Your task to perform on an android device: Open the calendar app, open the side menu, and click the "Day" option Image 0: 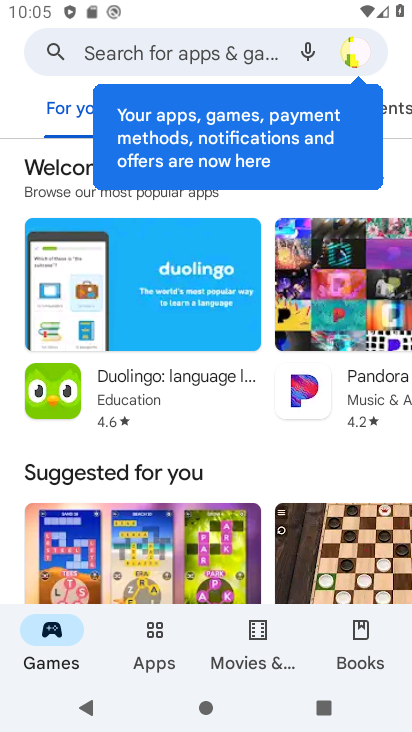
Step 0: press home button
Your task to perform on an android device: Open the calendar app, open the side menu, and click the "Day" option Image 1: 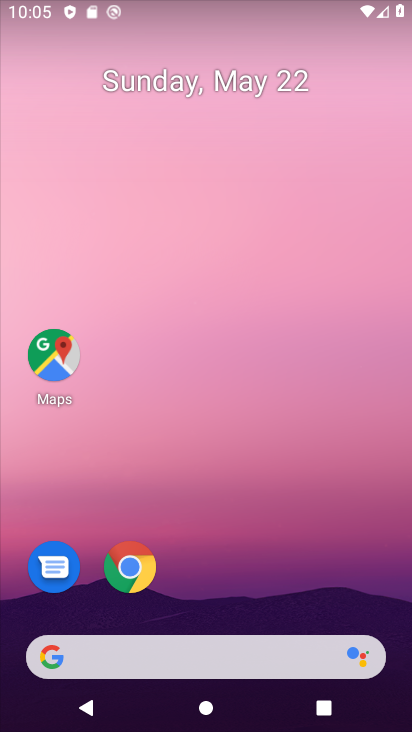
Step 1: drag from (164, 653) to (141, 142)
Your task to perform on an android device: Open the calendar app, open the side menu, and click the "Day" option Image 2: 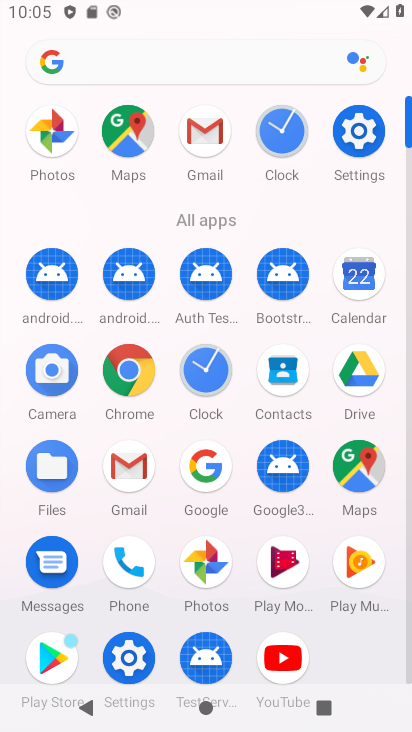
Step 2: click (350, 265)
Your task to perform on an android device: Open the calendar app, open the side menu, and click the "Day" option Image 3: 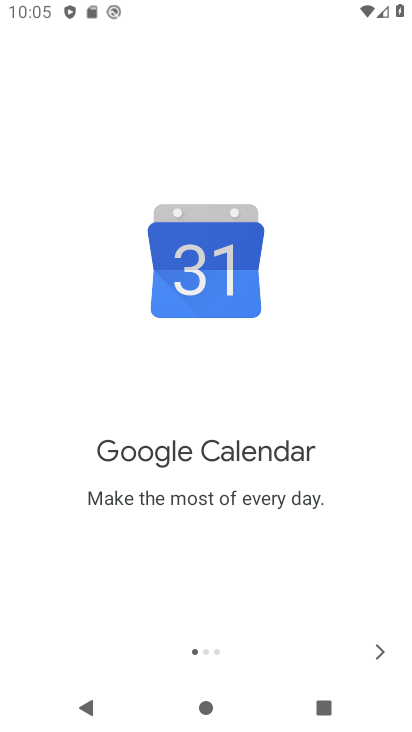
Step 3: click (373, 654)
Your task to perform on an android device: Open the calendar app, open the side menu, and click the "Day" option Image 4: 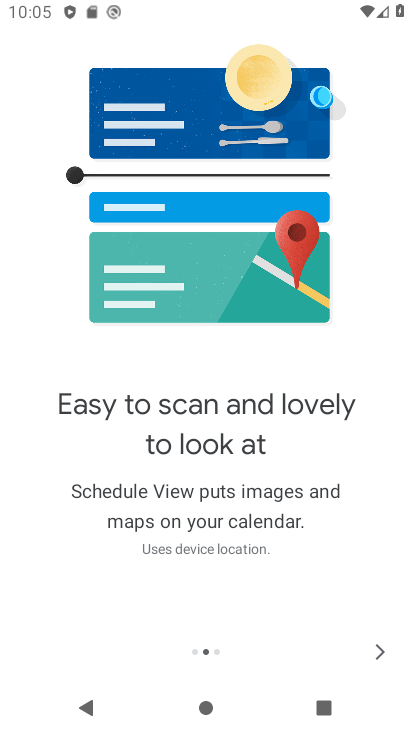
Step 4: click (391, 639)
Your task to perform on an android device: Open the calendar app, open the side menu, and click the "Day" option Image 5: 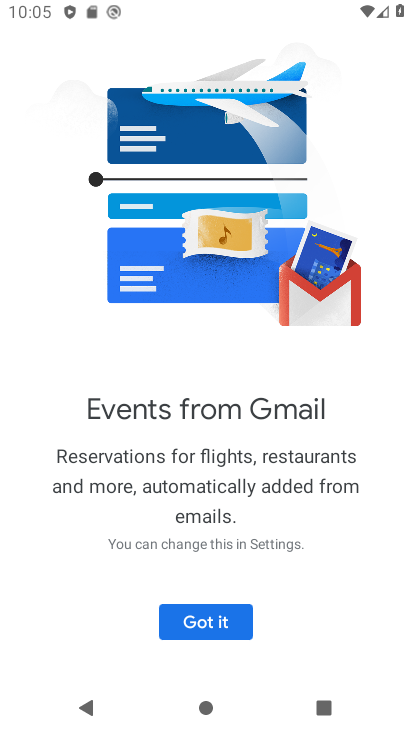
Step 5: click (213, 626)
Your task to perform on an android device: Open the calendar app, open the side menu, and click the "Day" option Image 6: 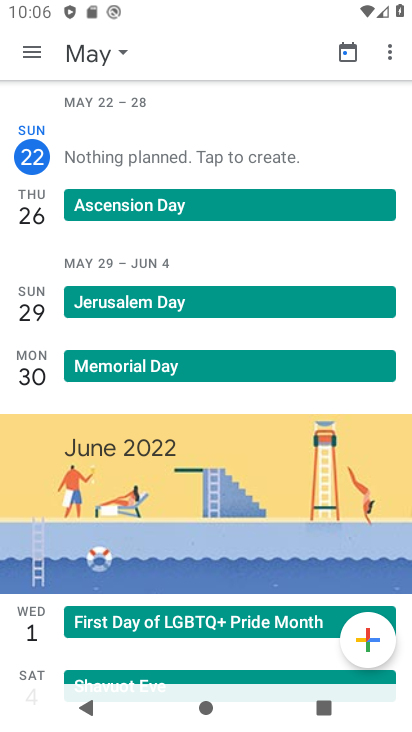
Step 6: click (34, 59)
Your task to perform on an android device: Open the calendar app, open the side menu, and click the "Day" option Image 7: 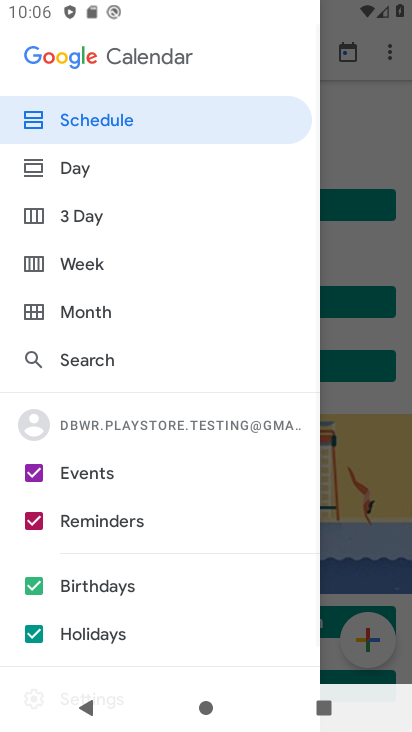
Step 7: click (101, 168)
Your task to perform on an android device: Open the calendar app, open the side menu, and click the "Day" option Image 8: 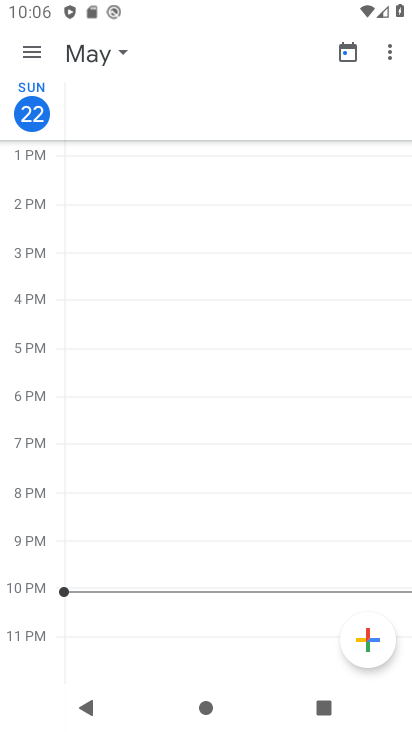
Step 8: task complete